Your task to perform on an android device: turn notification dots on Image 0: 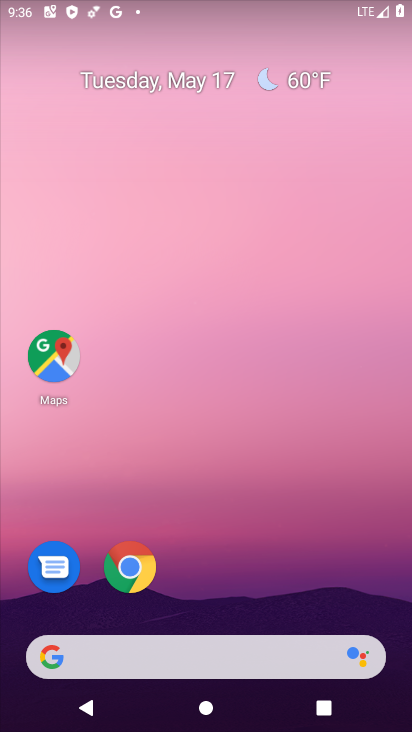
Step 0: drag from (383, 620) to (305, 44)
Your task to perform on an android device: turn notification dots on Image 1: 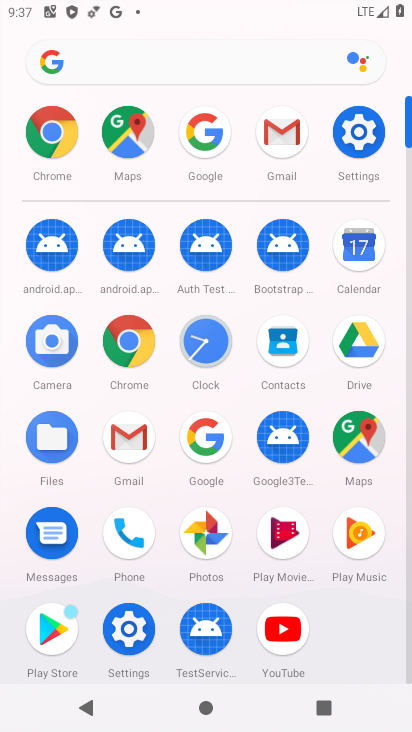
Step 1: click (366, 156)
Your task to perform on an android device: turn notification dots on Image 2: 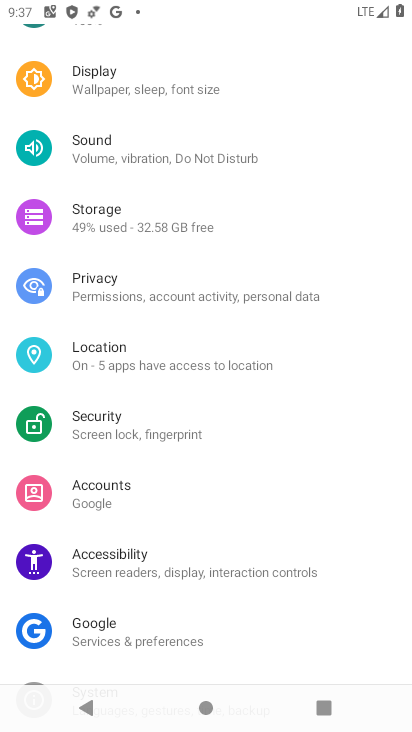
Step 2: drag from (200, 207) to (161, 567)
Your task to perform on an android device: turn notification dots on Image 3: 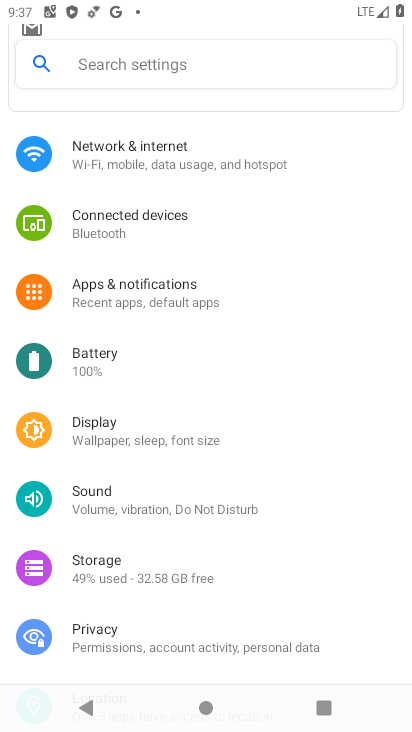
Step 3: click (165, 299)
Your task to perform on an android device: turn notification dots on Image 4: 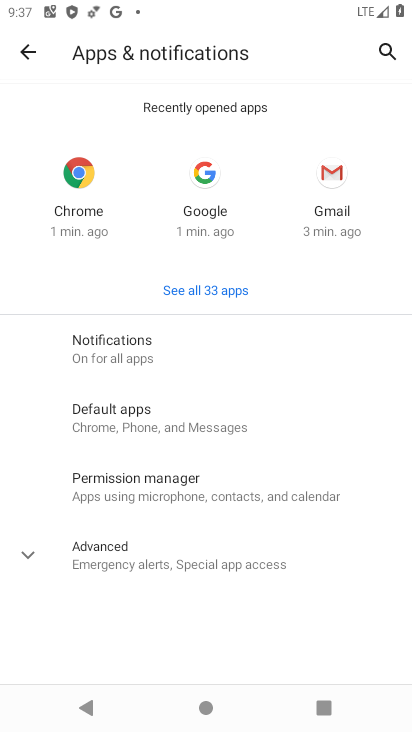
Step 4: click (148, 369)
Your task to perform on an android device: turn notification dots on Image 5: 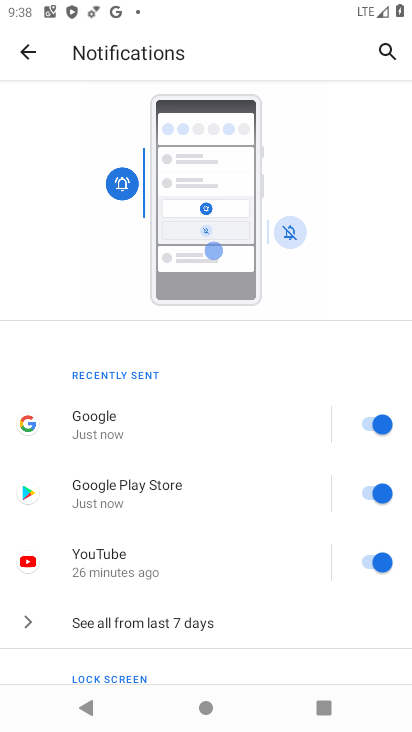
Step 5: drag from (222, 624) to (189, 133)
Your task to perform on an android device: turn notification dots on Image 6: 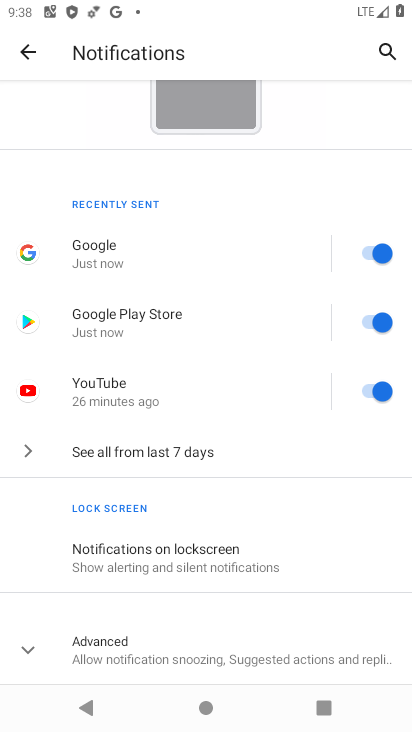
Step 6: click (146, 647)
Your task to perform on an android device: turn notification dots on Image 7: 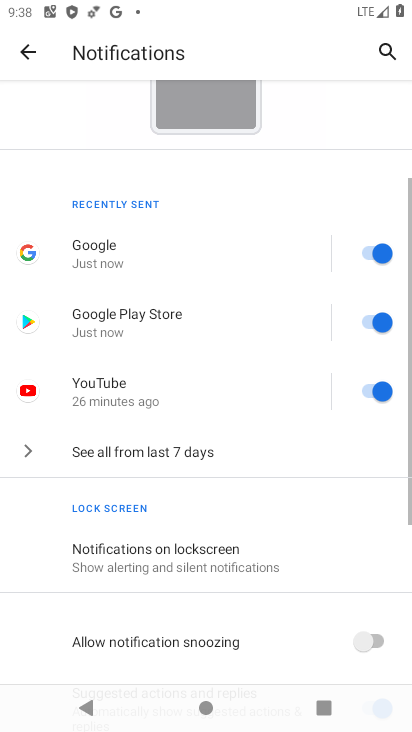
Step 7: task complete